Your task to perform on an android device: turn on notifications settings in the gmail app Image 0: 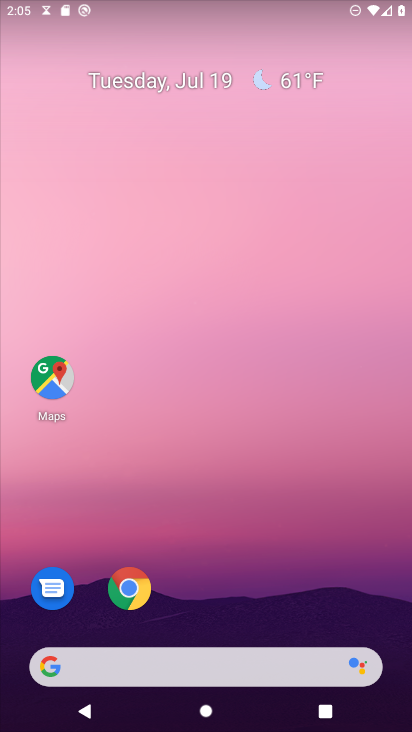
Step 0: drag from (274, 689) to (214, 203)
Your task to perform on an android device: turn on notifications settings in the gmail app Image 1: 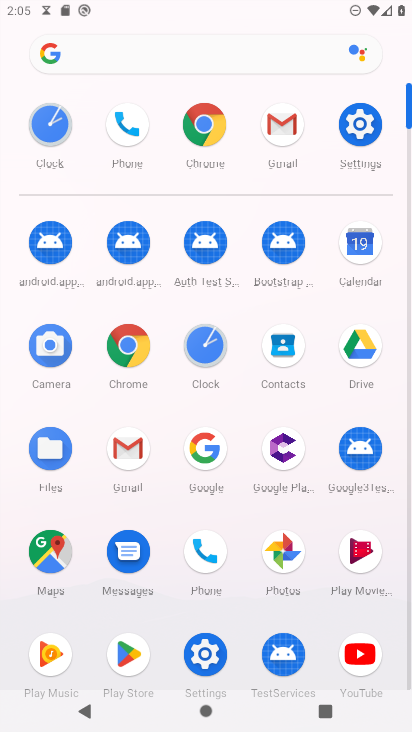
Step 1: click (120, 460)
Your task to perform on an android device: turn on notifications settings in the gmail app Image 2: 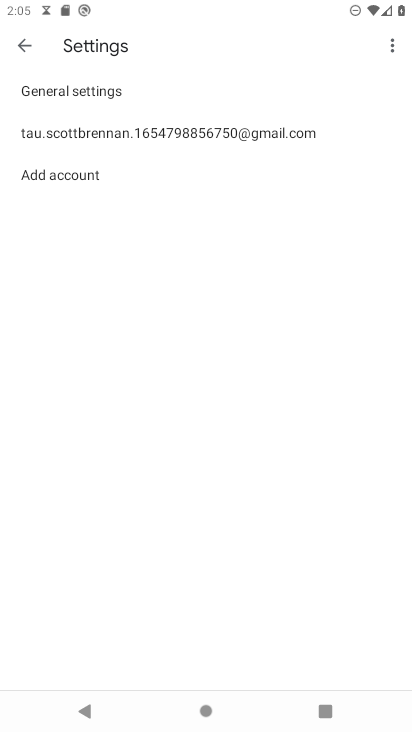
Step 2: click (133, 132)
Your task to perform on an android device: turn on notifications settings in the gmail app Image 3: 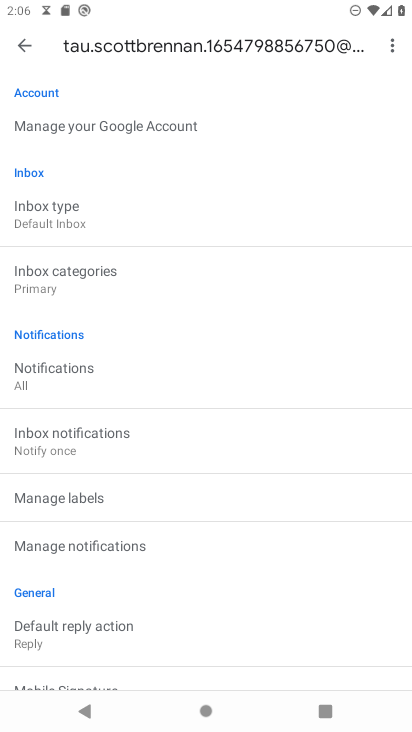
Step 3: click (116, 371)
Your task to perform on an android device: turn on notifications settings in the gmail app Image 4: 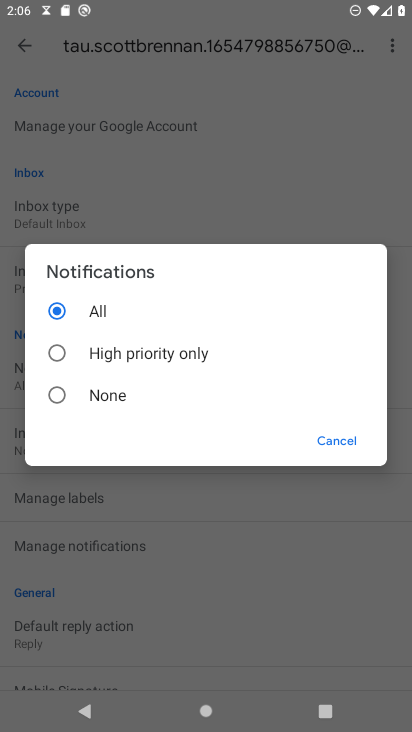
Step 4: task complete